Your task to perform on an android device: Play the last video I watched on Youtube Image 0: 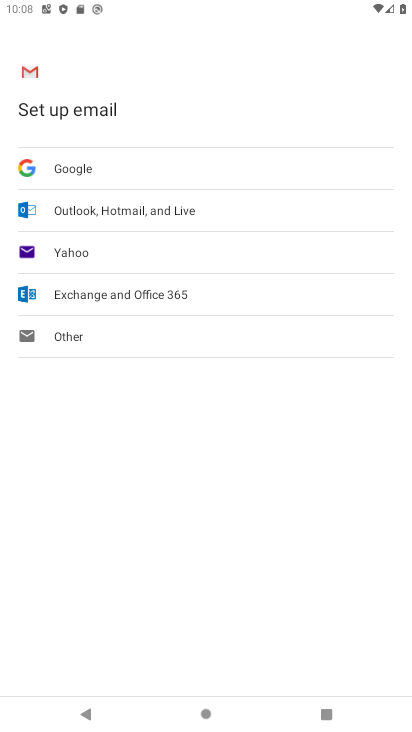
Step 0: press home button
Your task to perform on an android device: Play the last video I watched on Youtube Image 1: 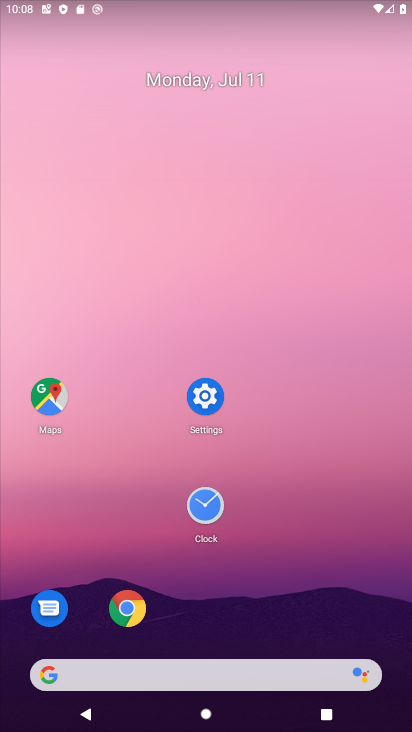
Step 1: drag from (410, 635) to (409, 75)
Your task to perform on an android device: Play the last video I watched on Youtube Image 2: 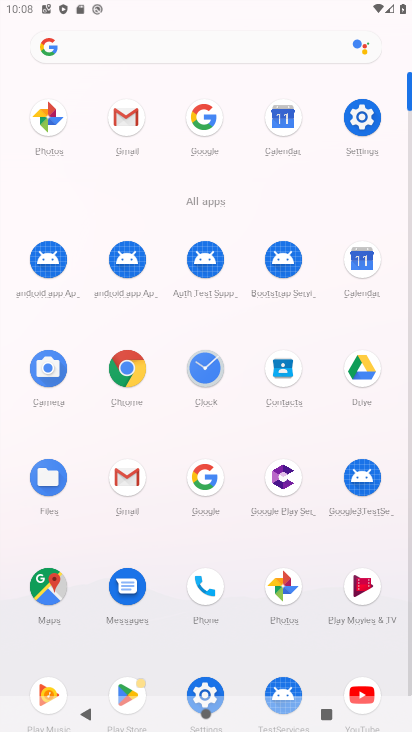
Step 2: click (363, 680)
Your task to perform on an android device: Play the last video I watched on Youtube Image 3: 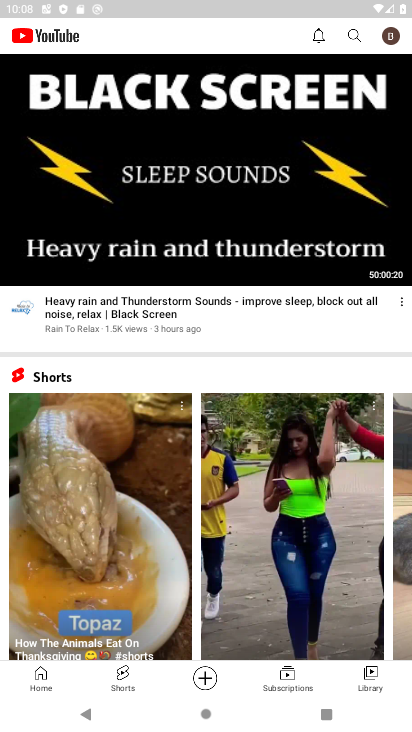
Step 3: click (361, 678)
Your task to perform on an android device: Play the last video I watched on Youtube Image 4: 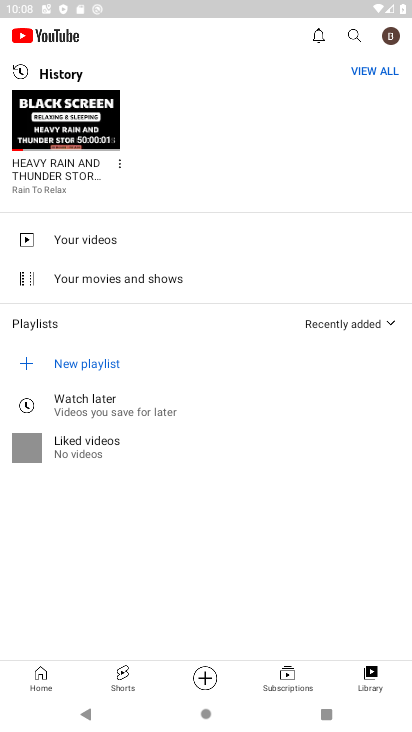
Step 4: click (54, 131)
Your task to perform on an android device: Play the last video I watched on Youtube Image 5: 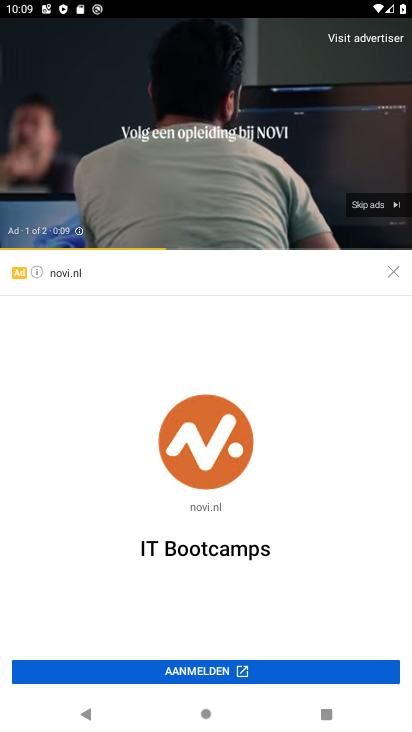
Step 5: click (392, 272)
Your task to perform on an android device: Play the last video I watched on Youtube Image 6: 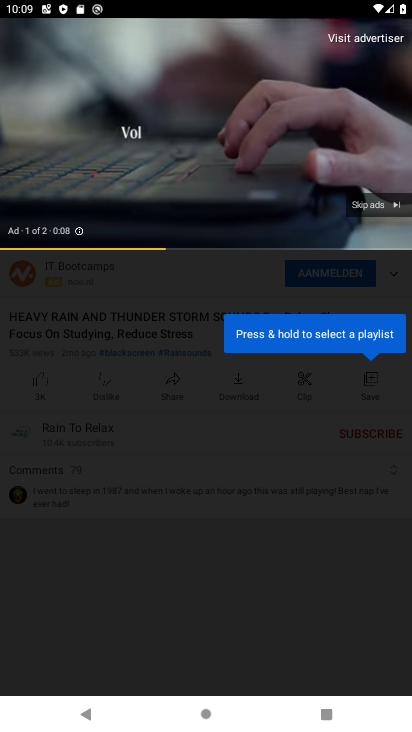
Step 6: click (384, 206)
Your task to perform on an android device: Play the last video I watched on Youtube Image 7: 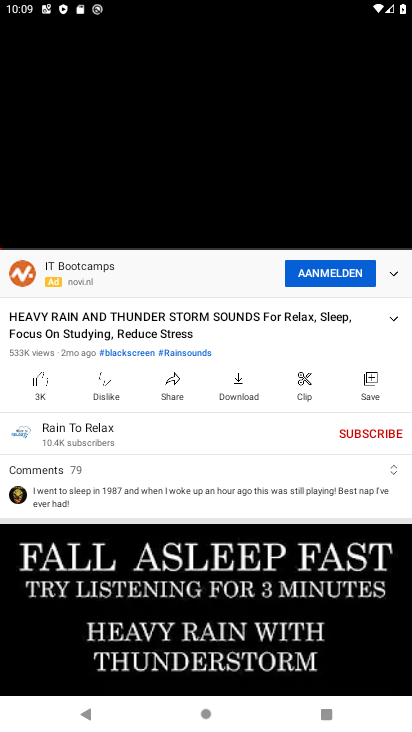
Step 7: task complete